Your task to perform on an android device: set default search engine in the chrome app Image 0: 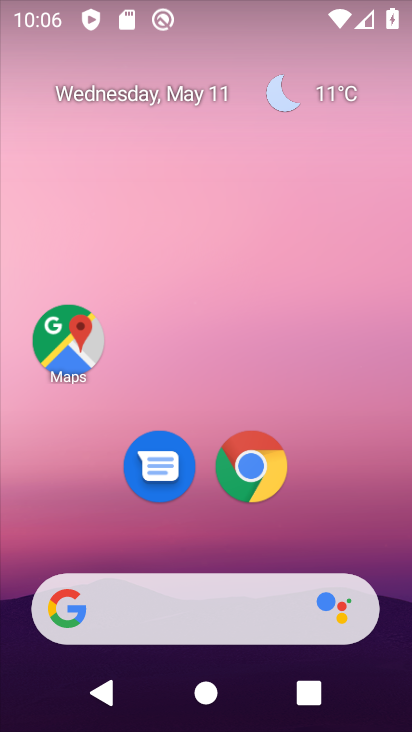
Step 0: click (261, 477)
Your task to perform on an android device: set default search engine in the chrome app Image 1: 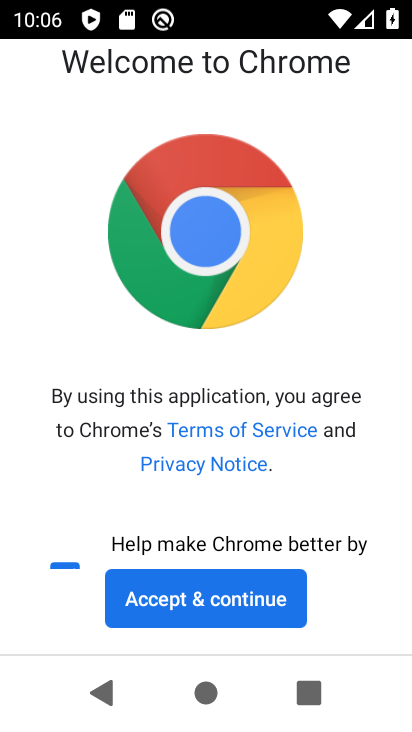
Step 1: click (274, 613)
Your task to perform on an android device: set default search engine in the chrome app Image 2: 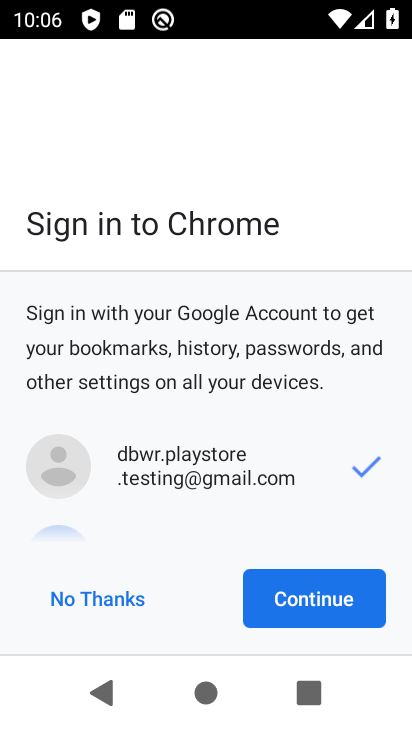
Step 2: click (298, 610)
Your task to perform on an android device: set default search engine in the chrome app Image 3: 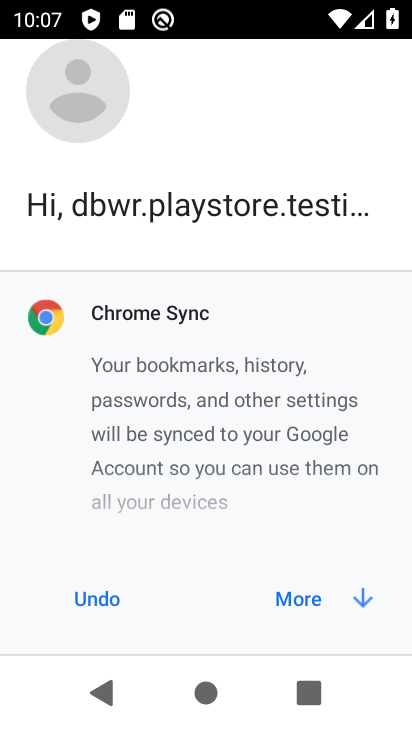
Step 3: click (298, 610)
Your task to perform on an android device: set default search engine in the chrome app Image 4: 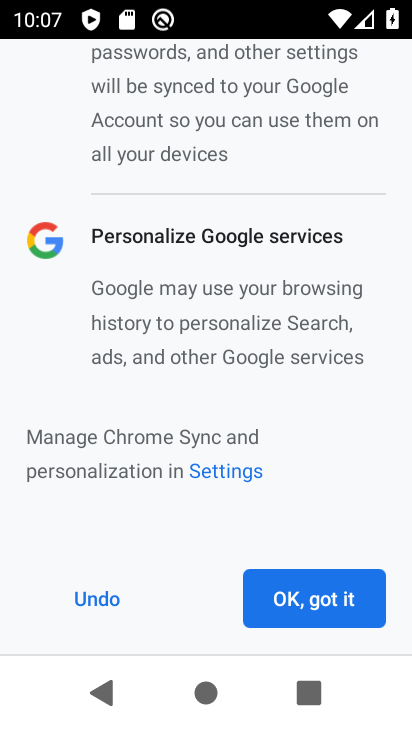
Step 4: click (298, 610)
Your task to perform on an android device: set default search engine in the chrome app Image 5: 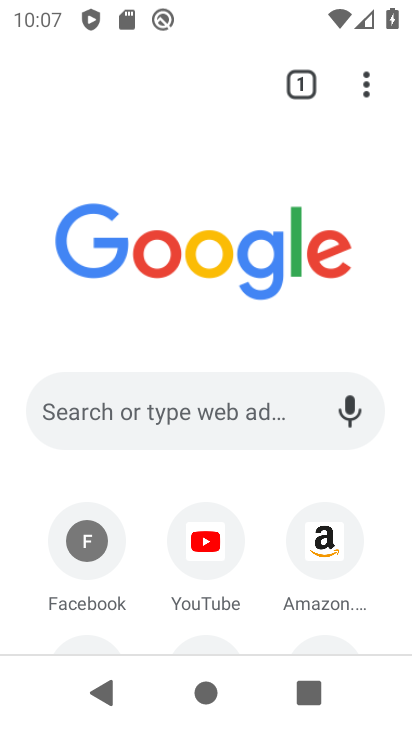
Step 5: click (366, 87)
Your task to perform on an android device: set default search engine in the chrome app Image 6: 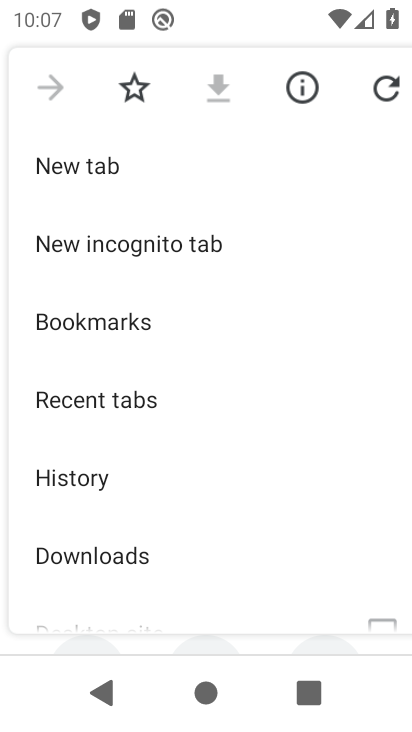
Step 6: drag from (174, 504) to (132, 303)
Your task to perform on an android device: set default search engine in the chrome app Image 7: 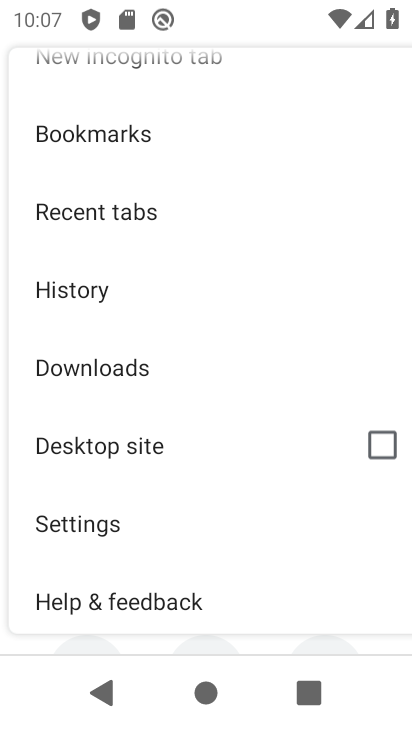
Step 7: click (120, 520)
Your task to perform on an android device: set default search engine in the chrome app Image 8: 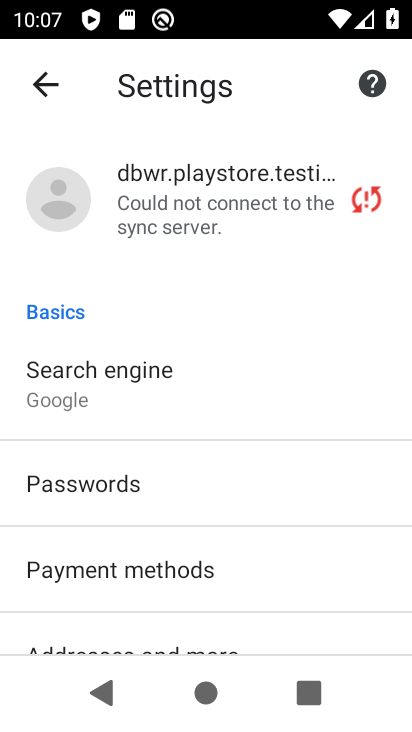
Step 8: click (158, 387)
Your task to perform on an android device: set default search engine in the chrome app Image 9: 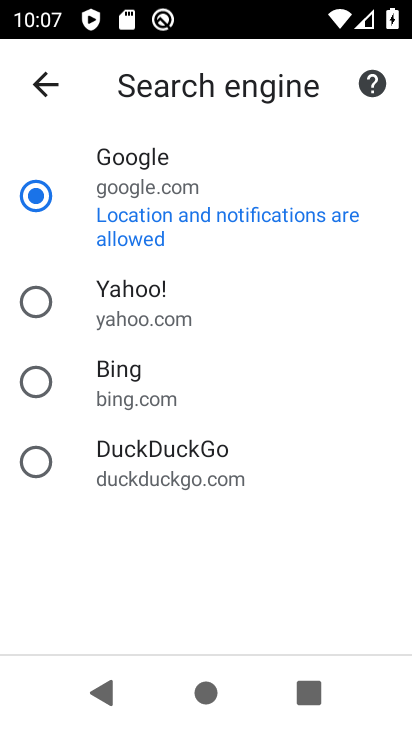
Step 9: click (133, 387)
Your task to perform on an android device: set default search engine in the chrome app Image 10: 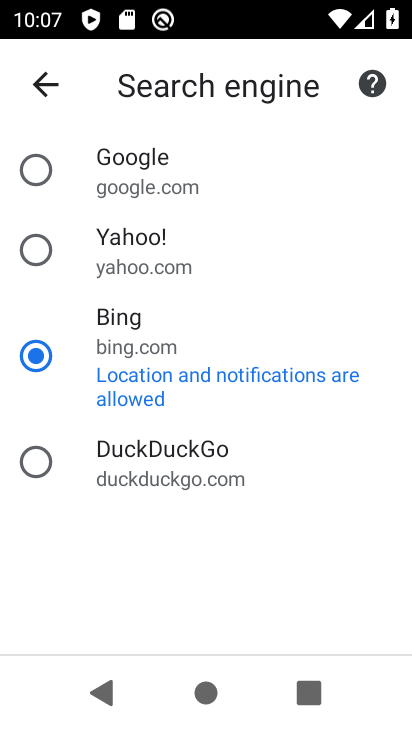
Step 10: task complete